Your task to perform on an android device: Open notification settings Image 0: 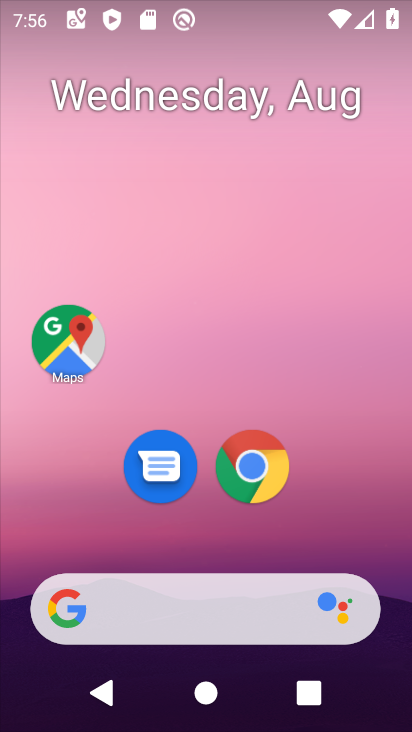
Step 0: drag from (348, 503) to (349, 111)
Your task to perform on an android device: Open notification settings Image 1: 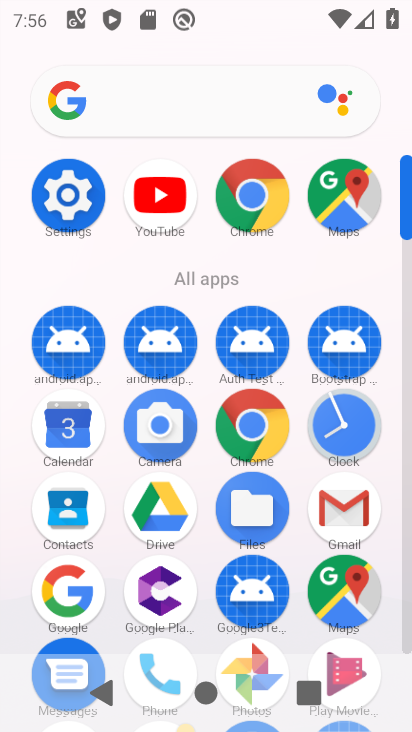
Step 1: click (48, 190)
Your task to perform on an android device: Open notification settings Image 2: 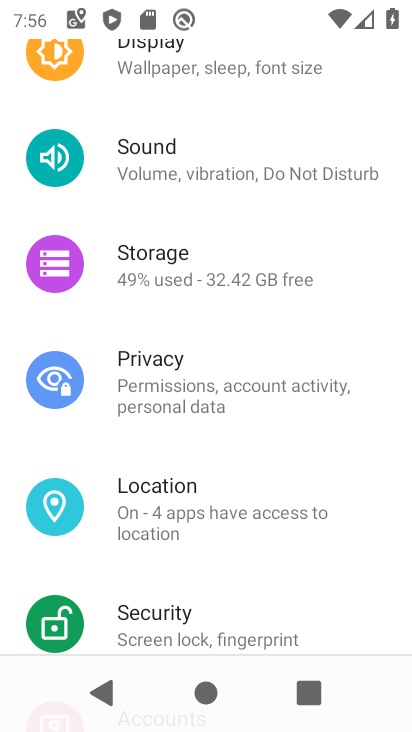
Step 2: drag from (272, 138) to (311, 428)
Your task to perform on an android device: Open notification settings Image 3: 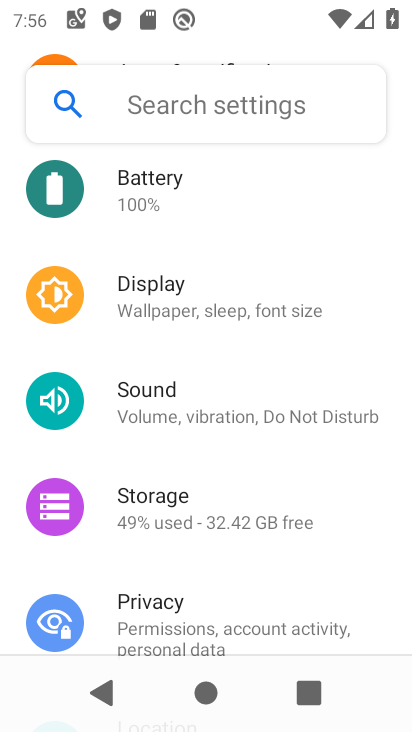
Step 3: drag from (256, 222) to (265, 508)
Your task to perform on an android device: Open notification settings Image 4: 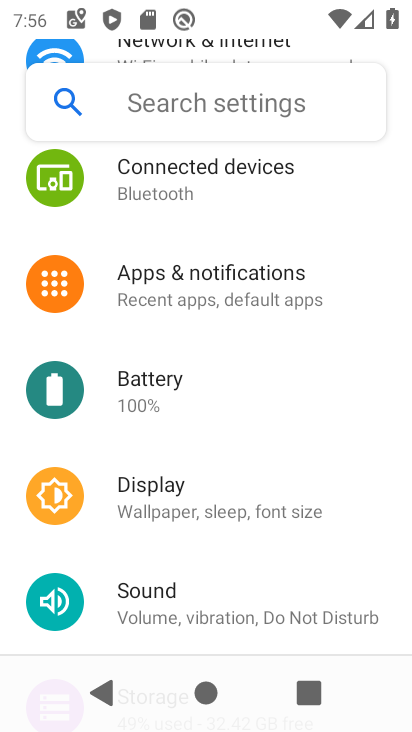
Step 4: click (211, 282)
Your task to perform on an android device: Open notification settings Image 5: 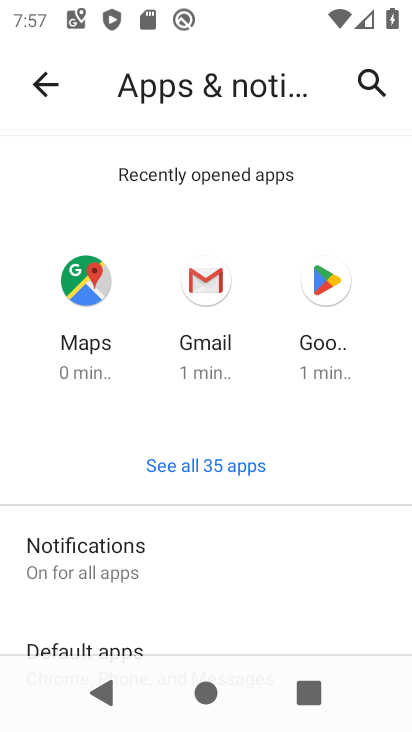
Step 5: task complete